Your task to perform on an android device: When is my next appointment? Image 0: 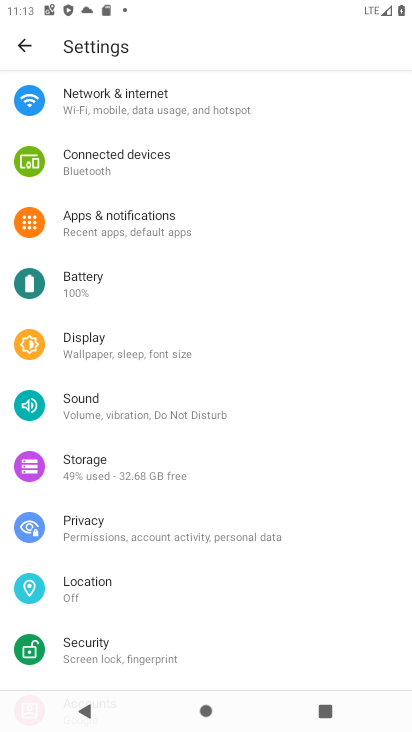
Step 0: press home button
Your task to perform on an android device: When is my next appointment? Image 1: 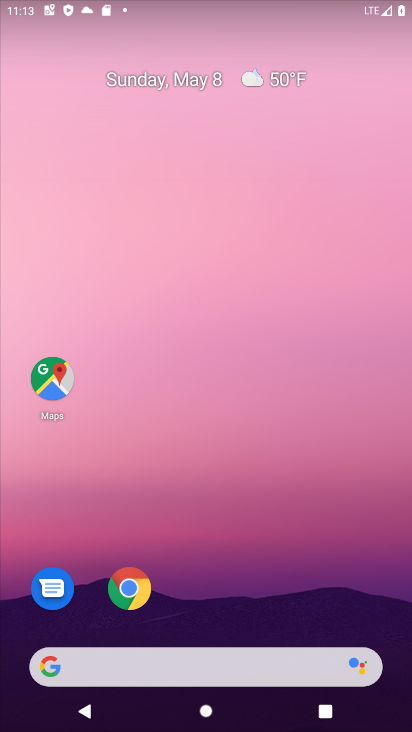
Step 1: drag from (249, 608) to (180, 1)
Your task to perform on an android device: When is my next appointment? Image 2: 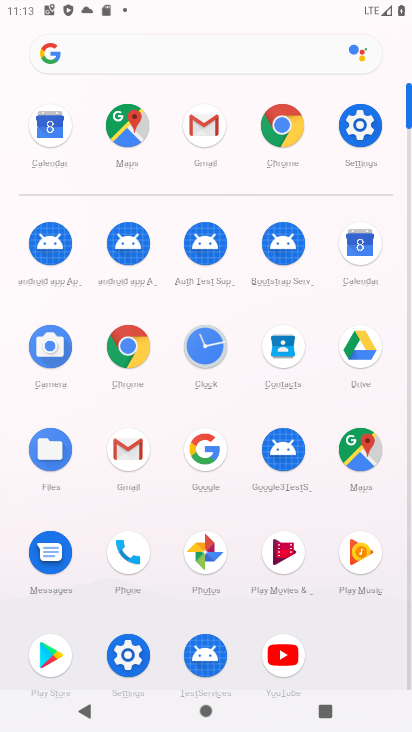
Step 2: click (360, 246)
Your task to perform on an android device: When is my next appointment? Image 3: 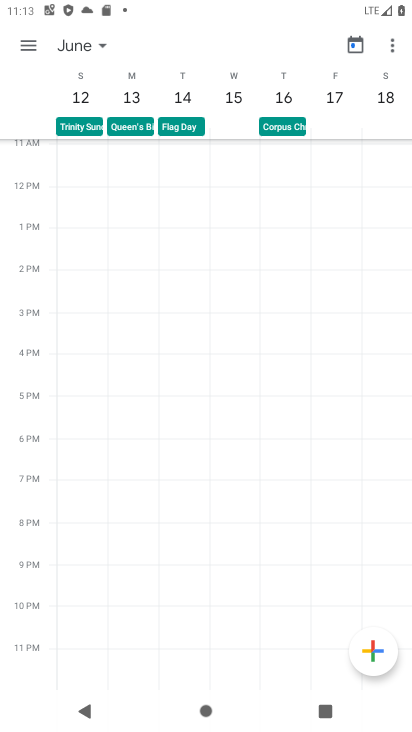
Step 3: click (38, 237)
Your task to perform on an android device: When is my next appointment? Image 4: 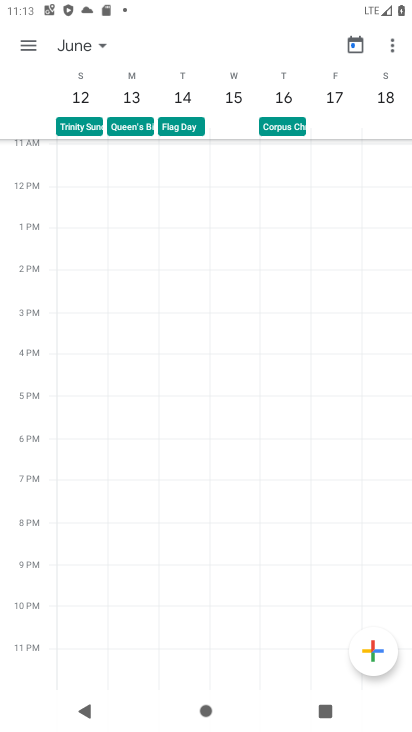
Step 4: click (96, 39)
Your task to perform on an android device: When is my next appointment? Image 5: 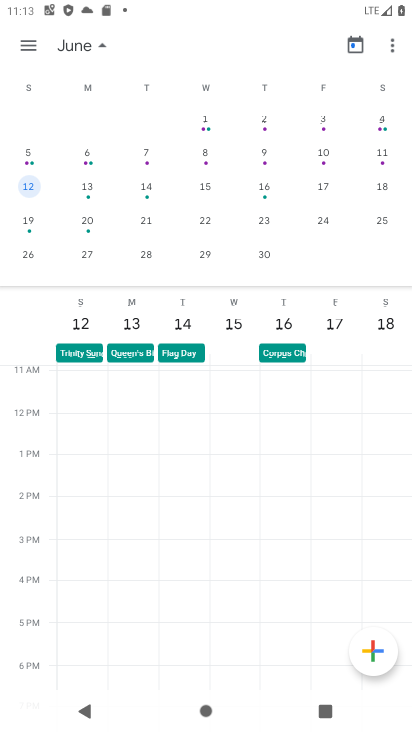
Step 5: drag from (55, 205) to (411, 194)
Your task to perform on an android device: When is my next appointment? Image 6: 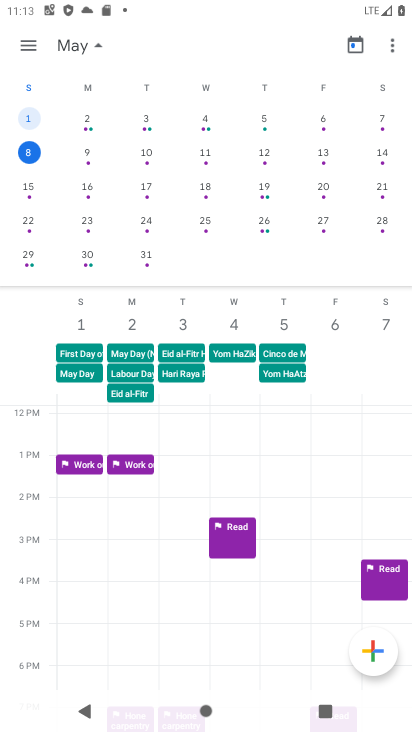
Step 6: click (30, 148)
Your task to perform on an android device: When is my next appointment? Image 7: 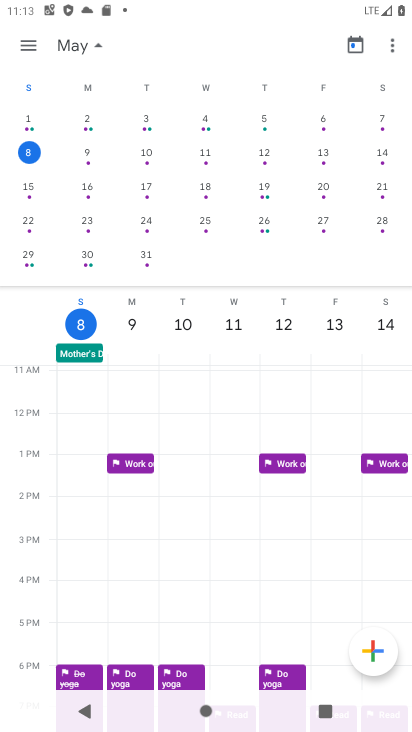
Step 7: task complete